Your task to perform on an android device: Is it going to rain today? Image 0: 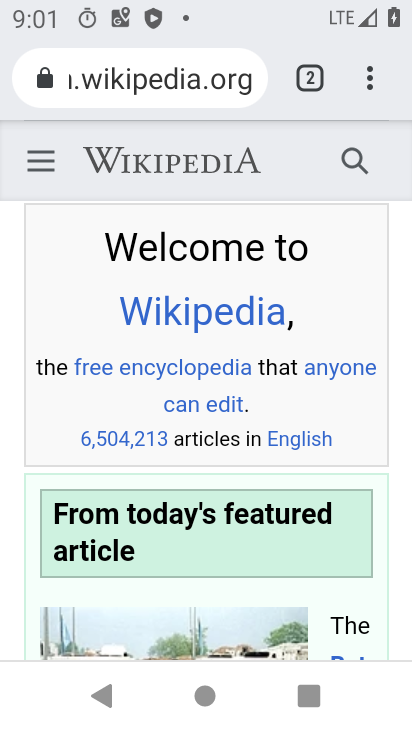
Step 0: press home button
Your task to perform on an android device: Is it going to rain today? Image 1: 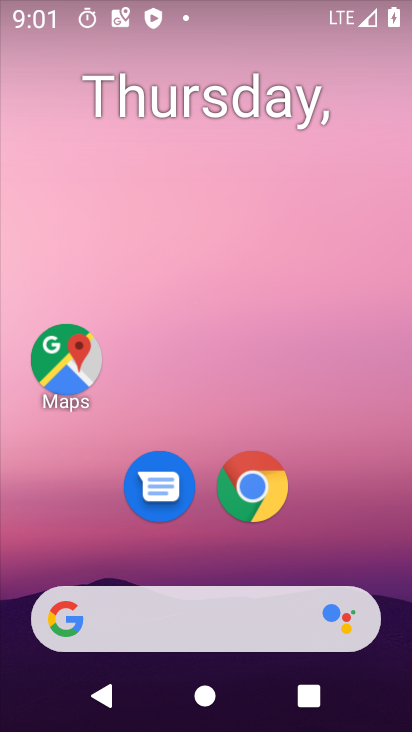
Step 1: drag from (208, 533) to (406, 163)
Your task to perform on an android device: Is it going to rain today? Image 2: 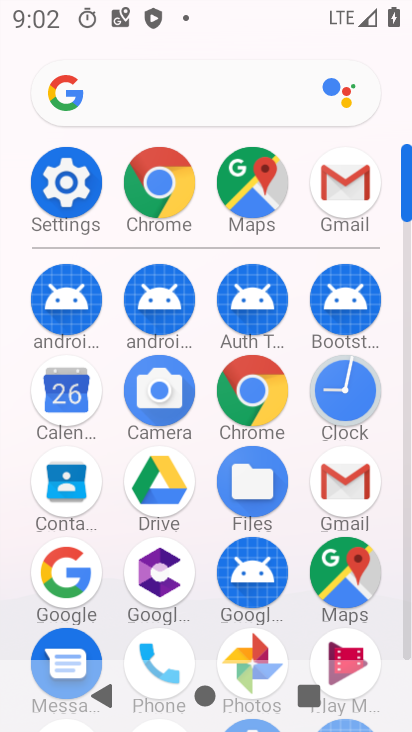
Step 2: click (69, 579)
Your task to perform on an android device: Is it going to rain today? Image 3: 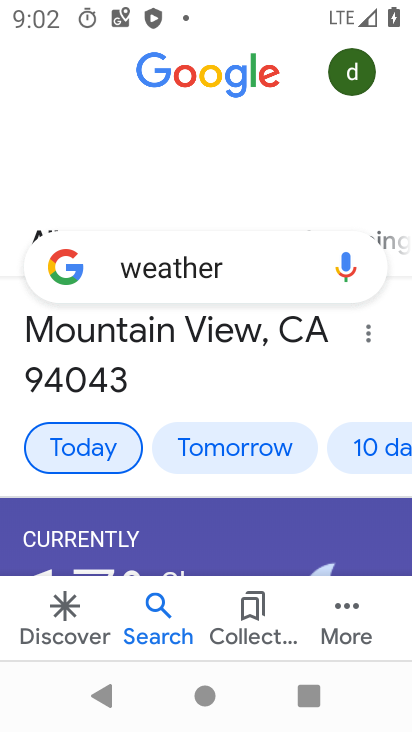
Step 3: task complete